Your task to perform on an android device: Open calendar and show me the second week of next month Image 0: 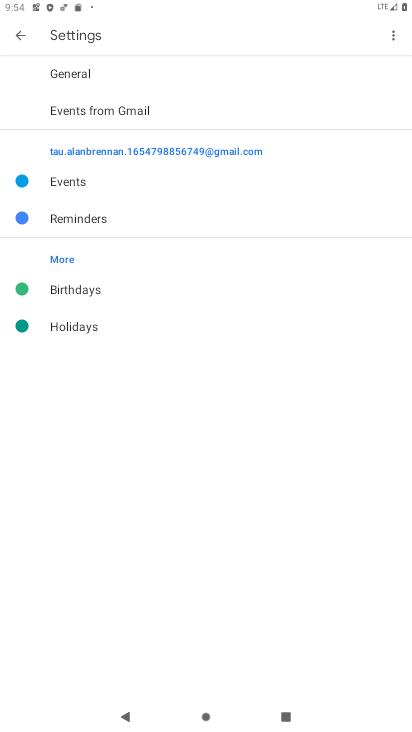
Step 0: press home button
Your task to perform on an android device: Open calendar and show me the second week of next month Image 1: 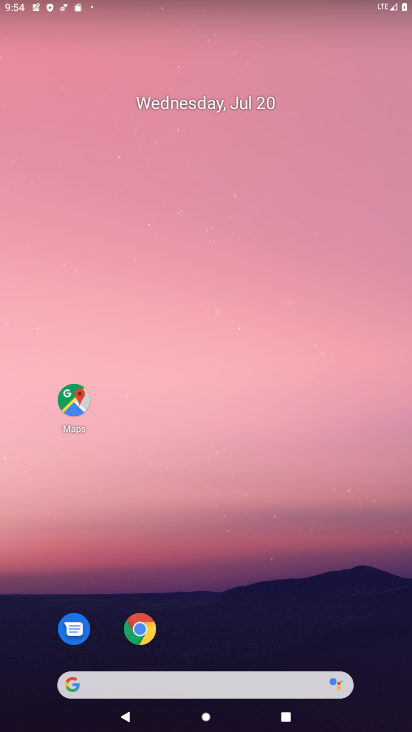
Step 1: drag from (288, 610) to (275, 0)
Your task to perform on an android device: Open calendar and show me the second week of next month Image 2: 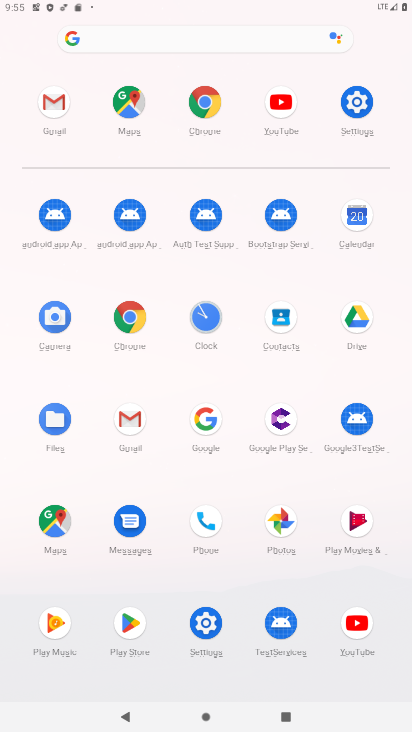
Step 2: click (349, 234)
Your task to perform on an android device: Open calendar and show me the second week of next month Image 3: 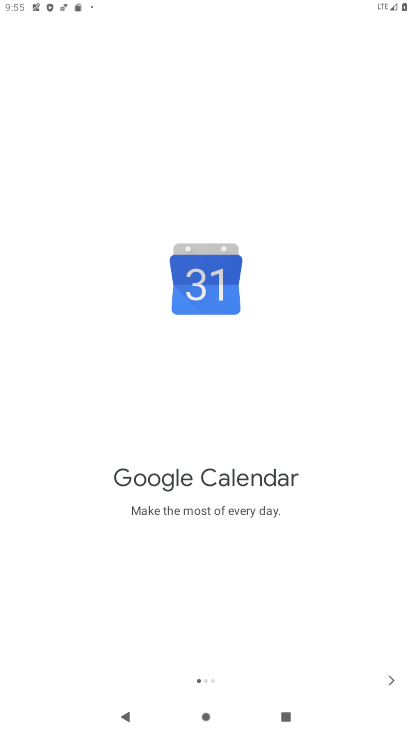
Step 3: click (384, 668)
Your task to perform on an android device: Open calendar and show me the second week of next month Image 4: 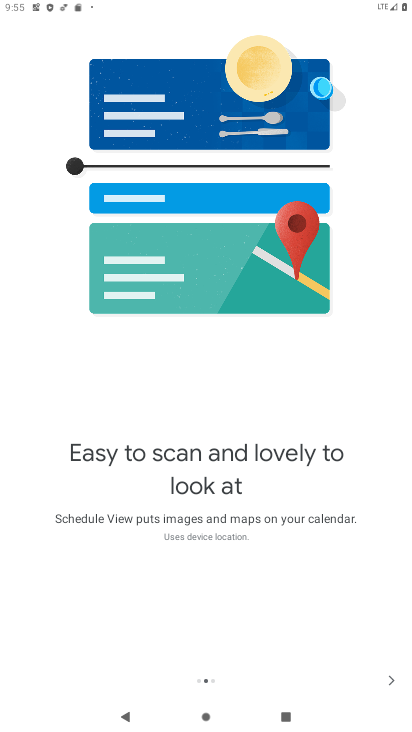
Step 4: click (384, 686)
Your task to perform on an android device: Open calendar and show me the second week of next month Image 5: 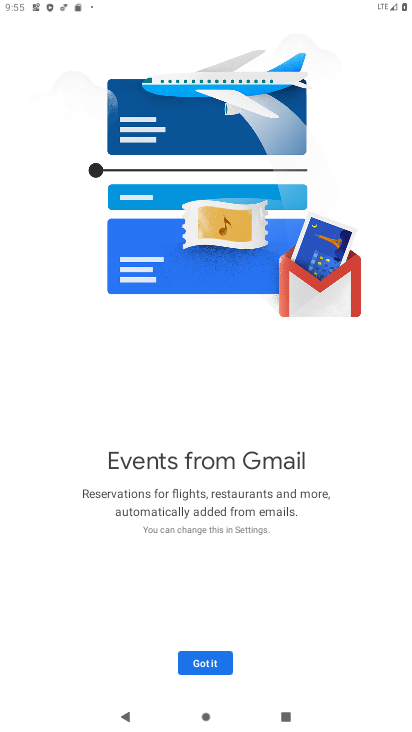
Step 5: click (215, 669)
Your task to perform on an android device: Open calendar and show me the second week of next month Image 6: 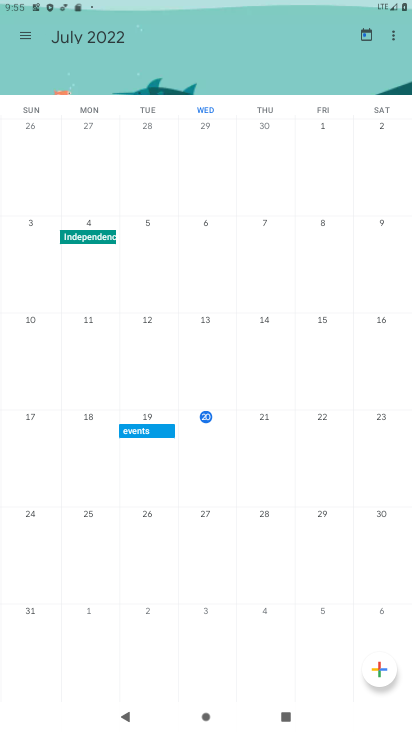
Step 6: drag from (367, 257) to (4, 342)
Your task to perform on an android device: Open calendar and show me the second week of next month Image 7: 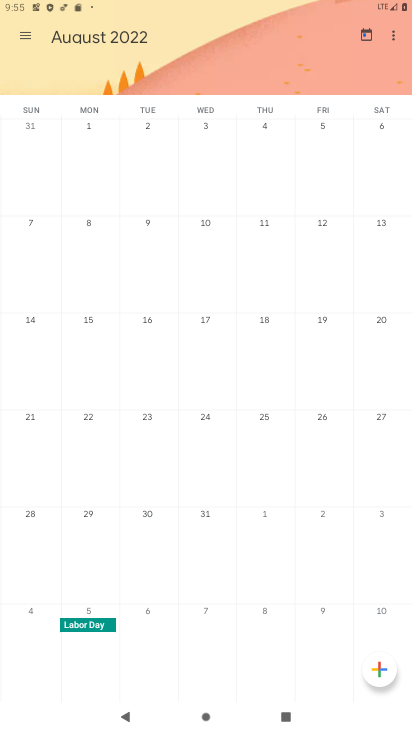
Step 7: click (70, 243)
Your task to perform on an android device: Open calendar and show me the second week of next month Image 8: 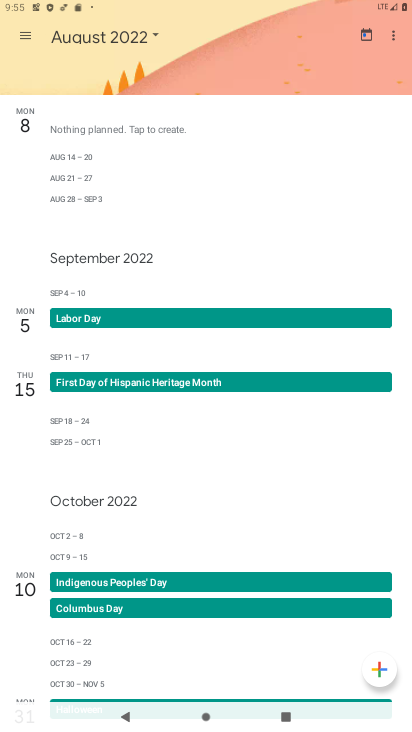
Step 8: task complete